Your task to perform on an android device: turn on sleep mode Image 0: 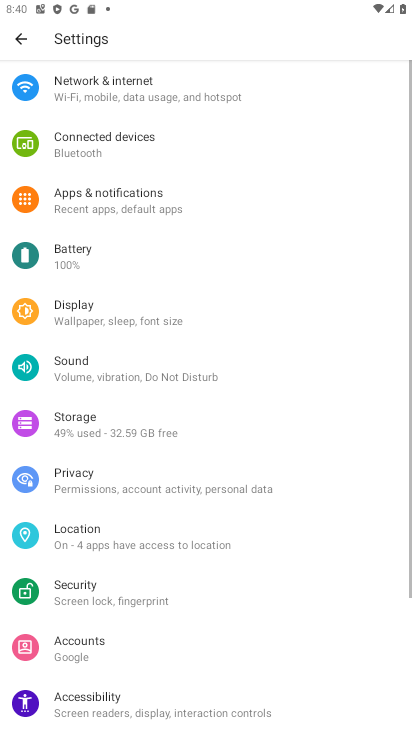
Step 0: click (99, 311)
Your task to perform on an android device: turn on sleep mode Image 1: 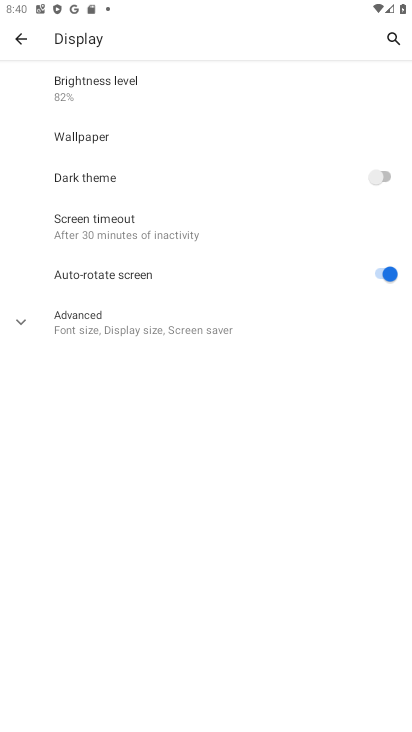
Step 1: click (119, 336)
Your task to perform on an android device: turn on sleep mode Image 2: 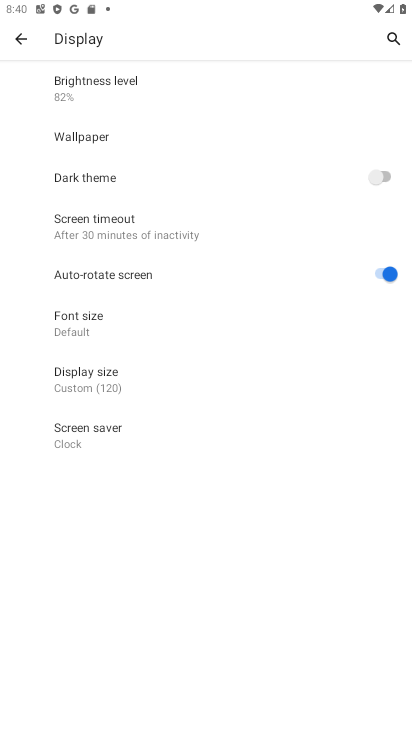
Step 2: task complete